Your task to perform on an android device: Open the map Image 0: 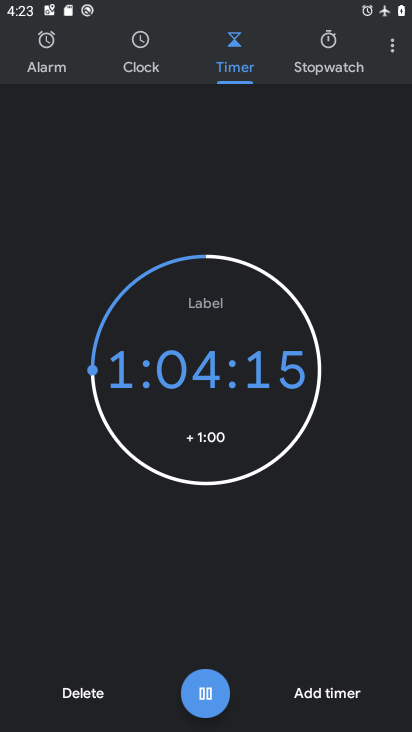
Step 0: press home button
Your task to perform on an android device: Open the map Image 1: 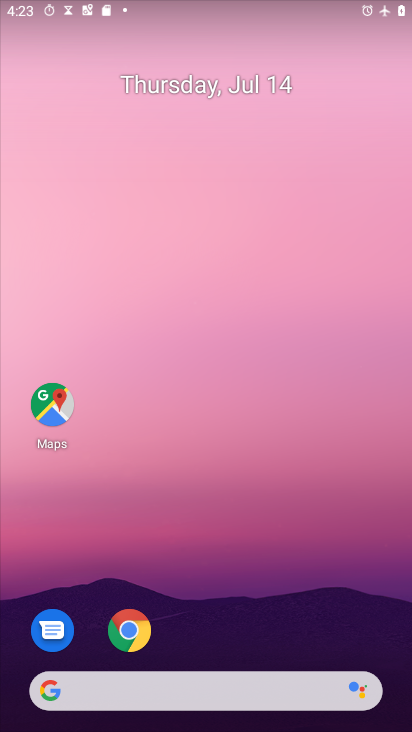
Step 1: drag from (173, 729) to (230, 149)
Your task to perform on an android device: Open the map Image 2: 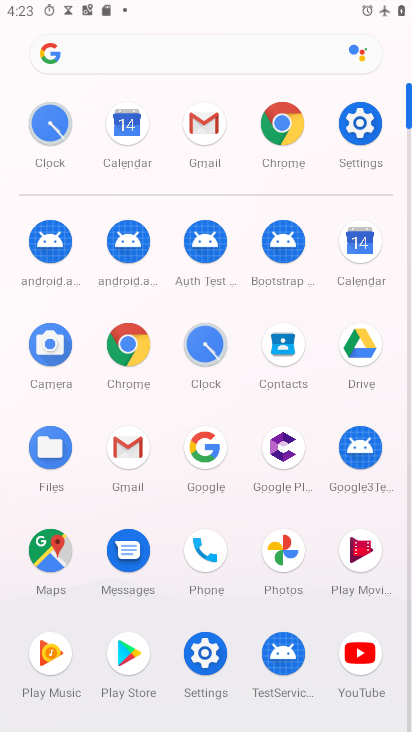
Step 2: click (47, 546)
Your task to perform on an android device: Open the map Image 3: 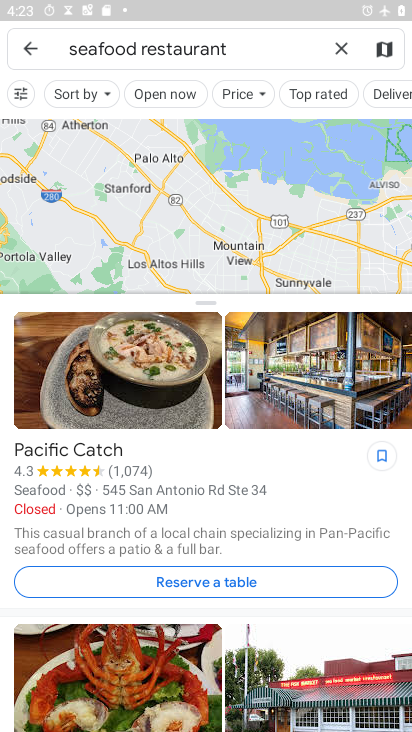
Step 3: task complete